Your task to perform on an android device: refresh tabs in the chrome app Image 0: 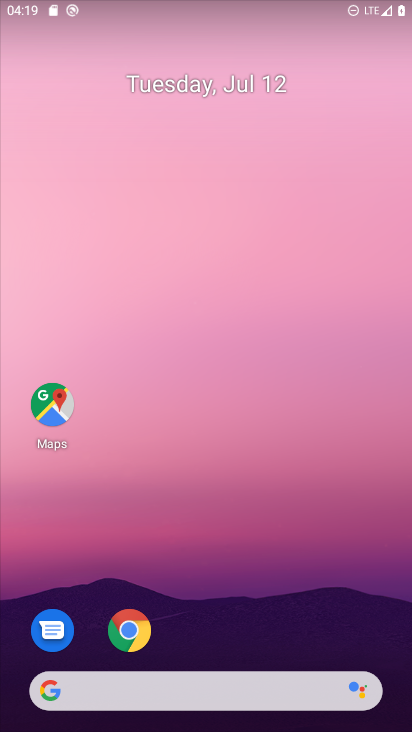
Step 0: drag from (179, 684) to (154, 15)
Your task to perform on an android device: refresh tabs in the chrome app Image 1: 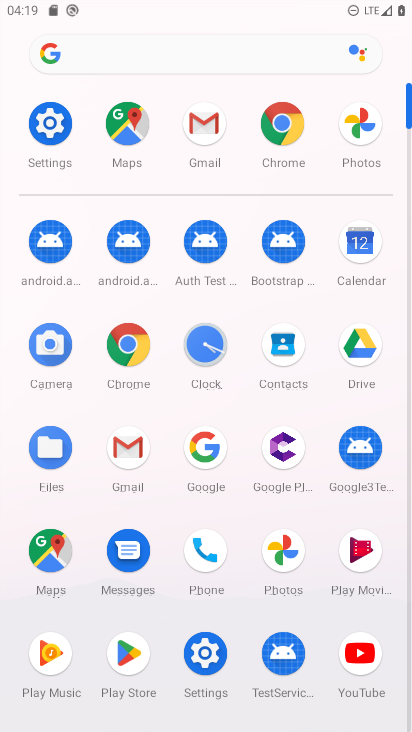
Step 1: click (125, 353)
Your task to perform on an android device: refresh tabs in the chrome app Image 2: 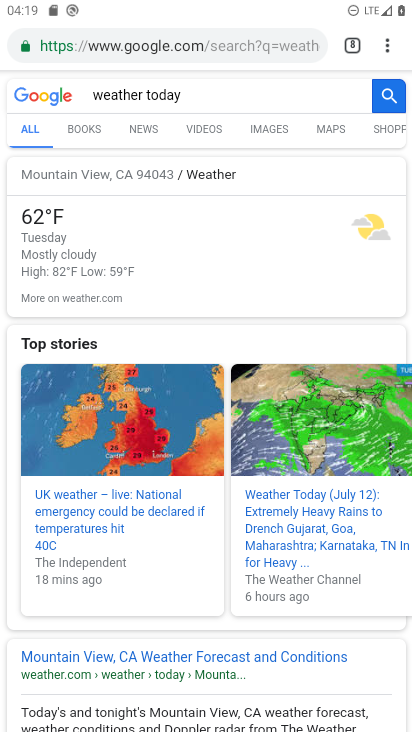
Step 2: click (378, 43)
Your task to perform on an android device: refresh tabs in the chrome app Image 3: 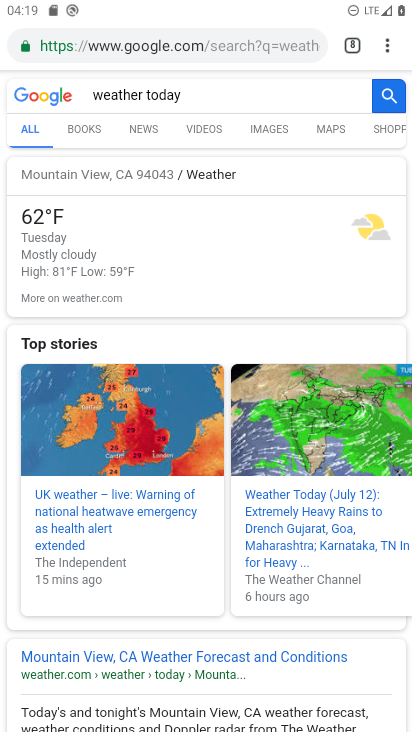
Step 3: task complete